Your task to perform on an android device: turn off airplane mode Image 0: 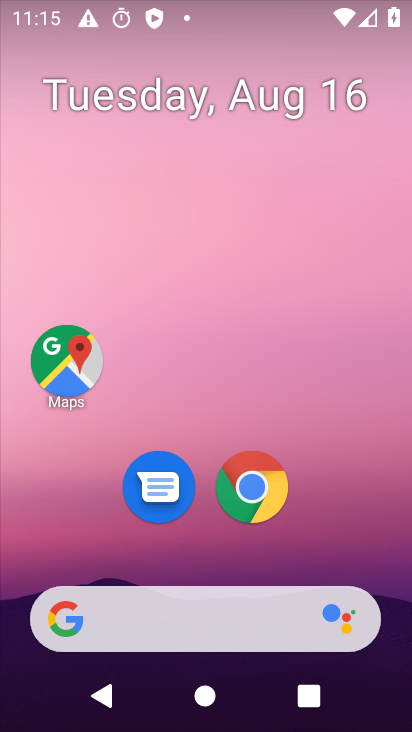
Step 0: drag from (288, 6) to (308, 702)
Your task to perform on an android device: turn off airplane mode Image 1: 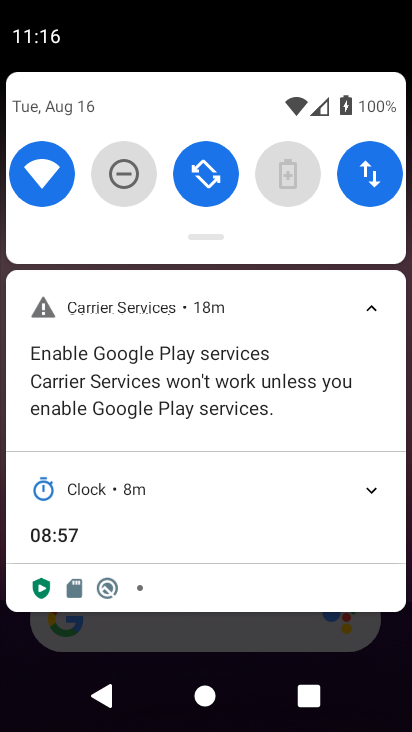
Step 1: task complete